Your task to perform on an android device: Show me recent news Image 0: 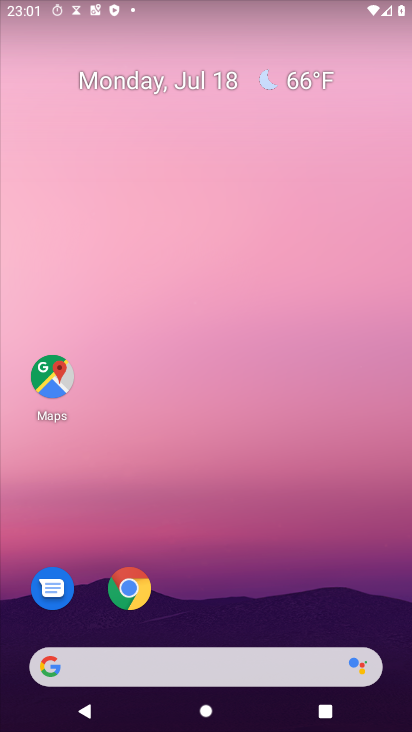
Step 0: click (172, 662)
Your task to perform on an android device: Show me recent news Image 1: 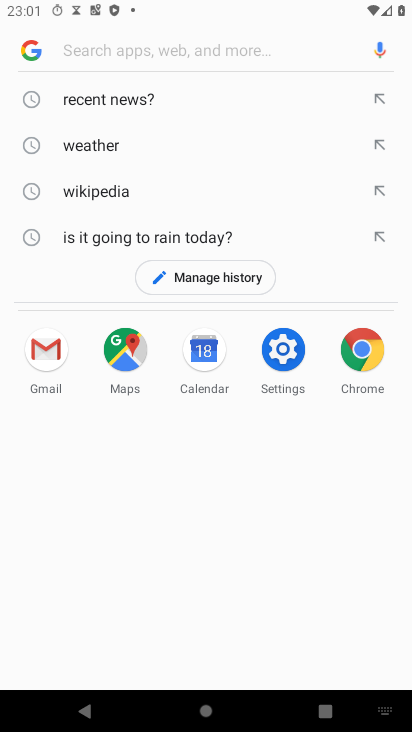
Step 1: click (135, 101)
Your task to perform on an android device: Show me recent news Image 2: 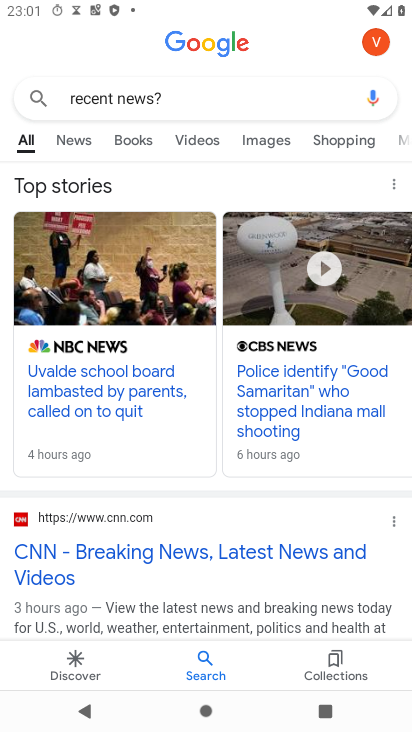
Step 2: click (80, 137)
Your task to perform on an android device: Show me recent news Image 3: 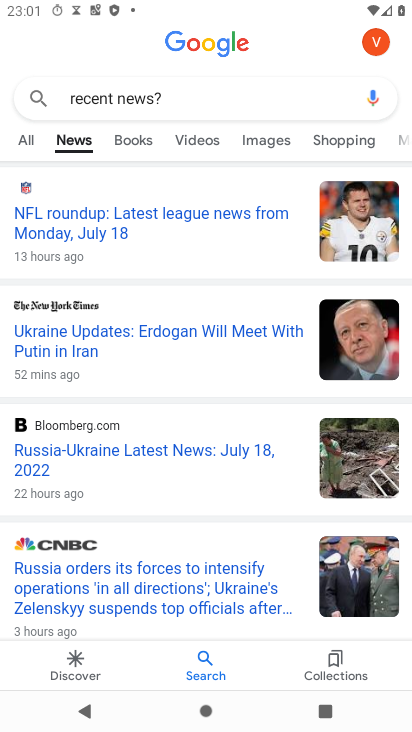
Step 3: task complete